Your task to perform on an android device: Is it going to rain today? Image 0: 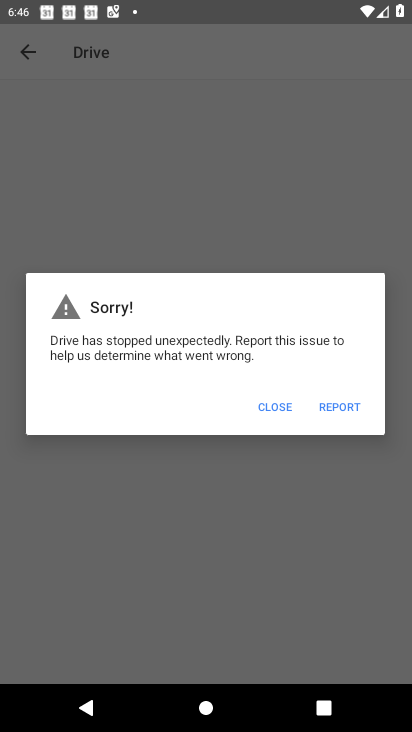
Step 0: press home button
Your task to perform on an android device: Is it going to rain today? Image 1: 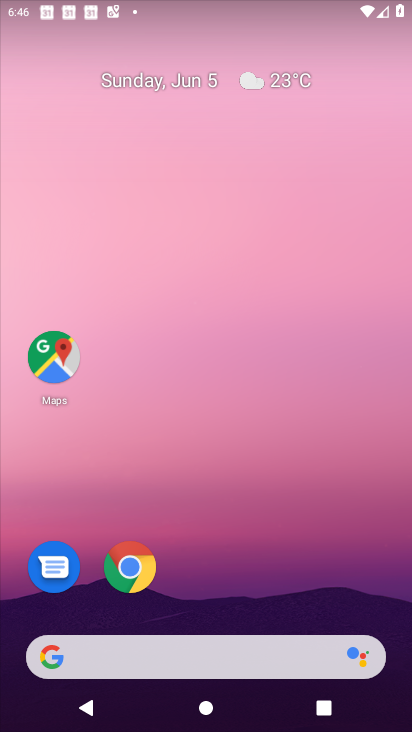
Step 1: drag from (407, 651) to (275, 27)
Your task to perform on an android device: Is it going to rain today? Image 2: 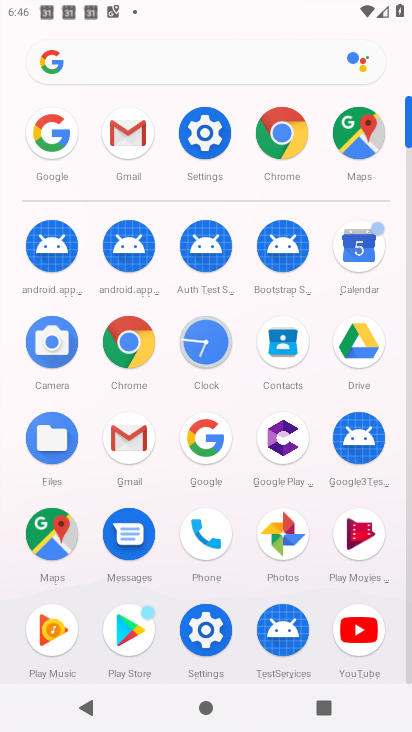
Step 2: click (209, 439)
Your task to perform on an android device: Is it going to rain today? Image 3: 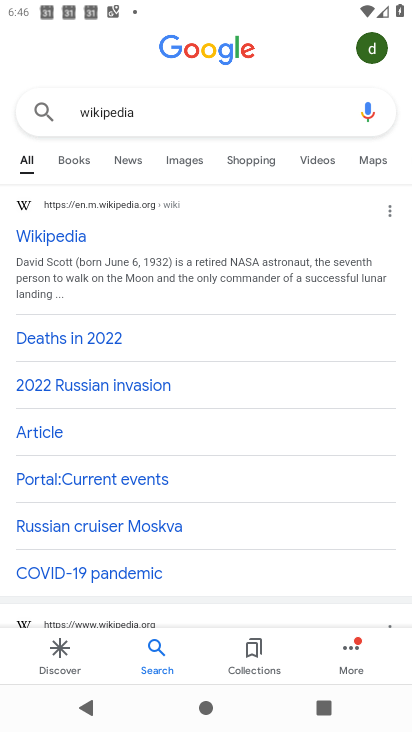
Step 3: press back button
Your task to perform on an android device: Is it going to rain today? Image 4: 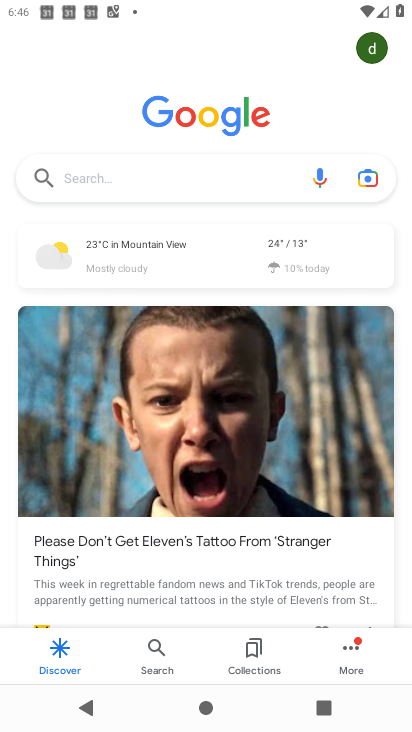
Step 4: click (135, 169)
Your task to perform on an android device: Is it going to rain today? Image 5: 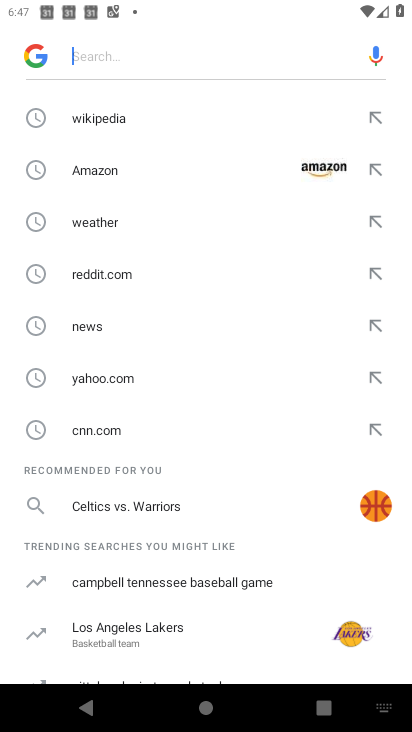
Step 5: type "is it going to rain today?"
Your task to perform on an android device: Is it going to rain today? Image 6: 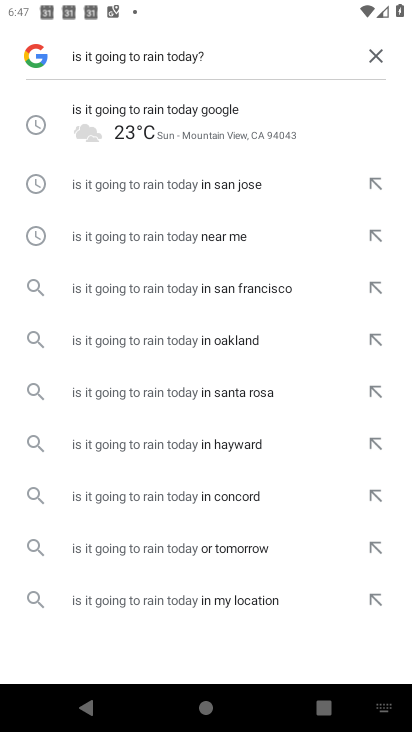
Step 6: click (246, 126)
Your task to perform on an android device: Is it going to rain today? Image 7: 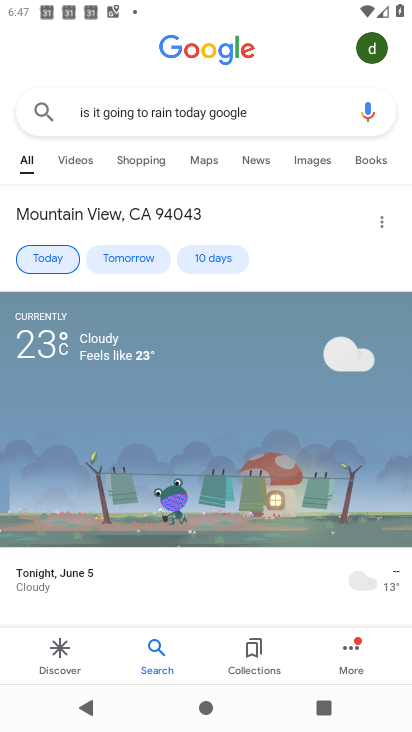
Step 7: task complete